Your task to perform on an android device: turn off data saver in the chrome app Image 0: 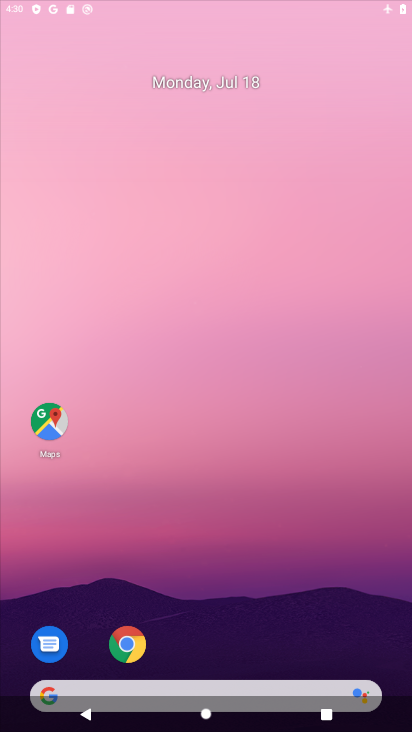
Step 0: press home button
Your task to perform on an android device: turn off data saver in the chrome app Image 1: 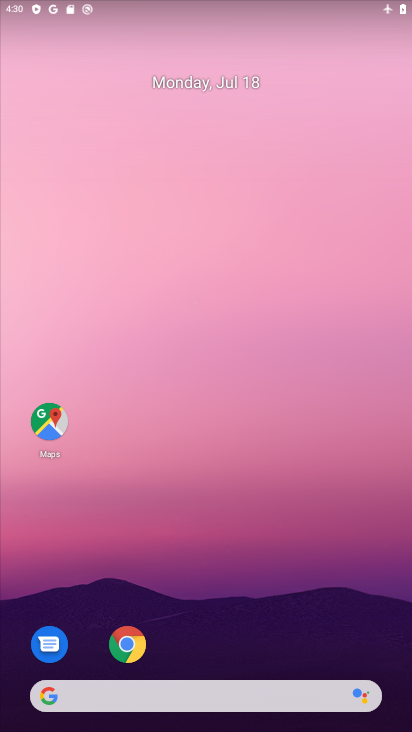
Step 1: drag from (243, 657) to (269, 0)
Your task to perform on an android device: turn off data saver in the chrome app Image 2: 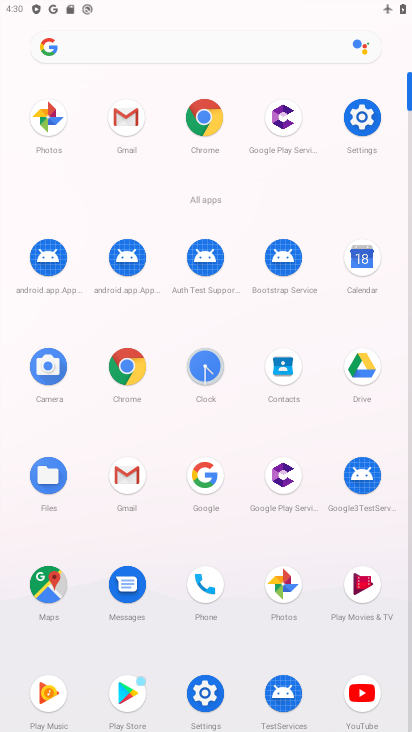
Step 2: drag from (259, 639) to (183, 17)
Your task to perform on an android device: turn off data saver in the chrome app Image 3: 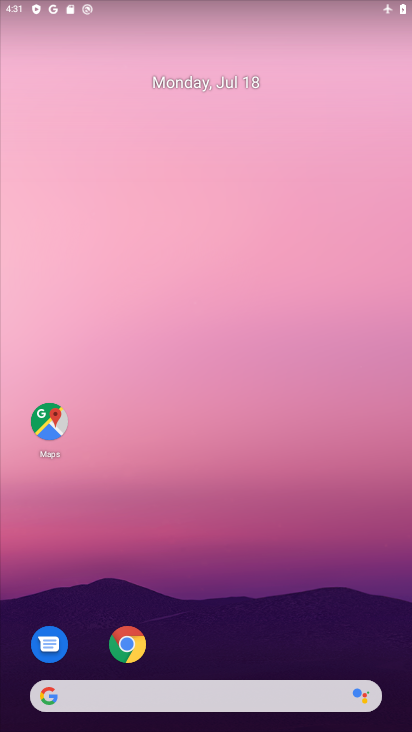
Step 3: drag from (261, 631) to (248, 56)
Your task to perform on an android device: turn off data saver in the chrome app Image 4: 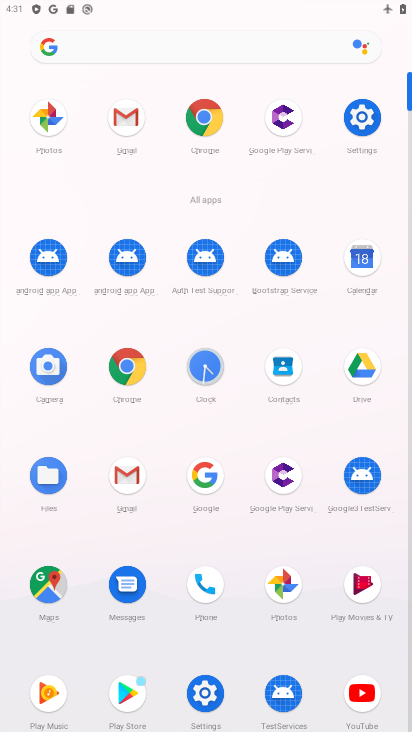
Step 4: click (194, 109)
Your task to perform on an android device: turn off data saver in the chrome app Image 5: 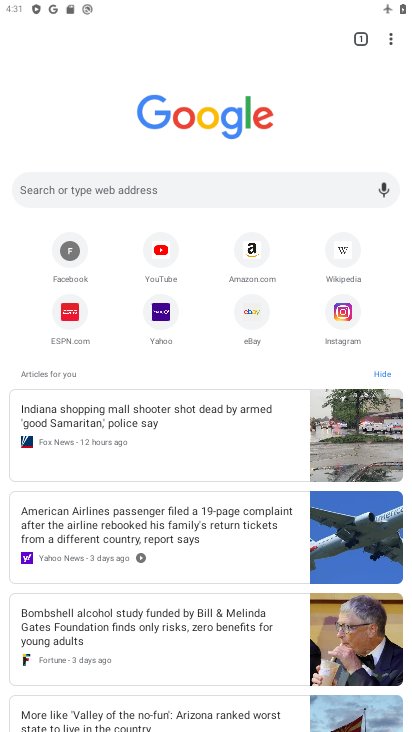
Step 5: drag from (389, 40) to (263, 332)
Your task to perform on an android device: turn off data saver in the chrome app Image 6: 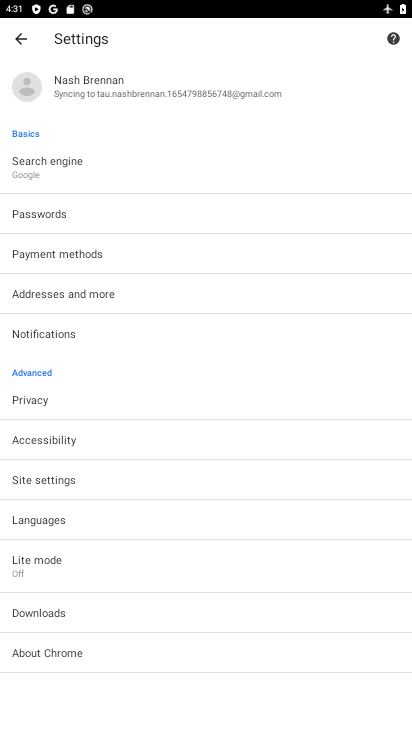
Step 6: click (44, 567)
Your task to perform on an android device: turn off data saver in the chrome app Image 7: 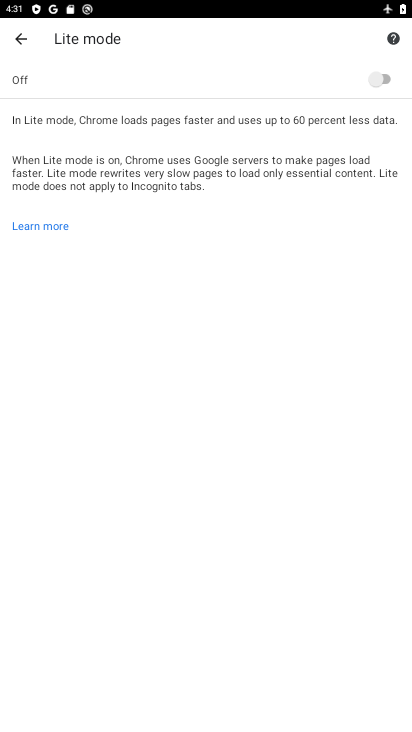
Step 7: task complete